Your task to perform on an android device: Go to Wikipedia Image 0: 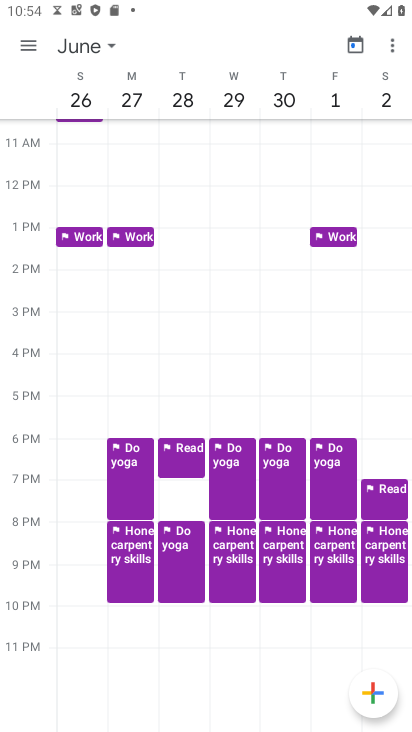
Step 0: press home button
Your task to perform on an android device: Go to Wikipedia Image 1: 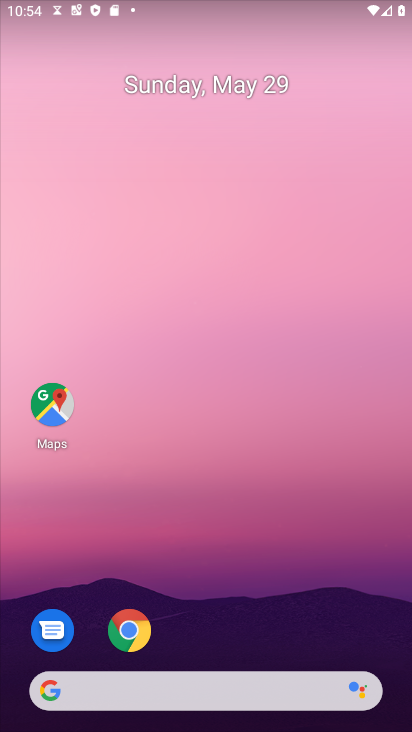
Step 1: click (117, 636)
Your task to perform on an android device: Go to Wikipedia Image 2: 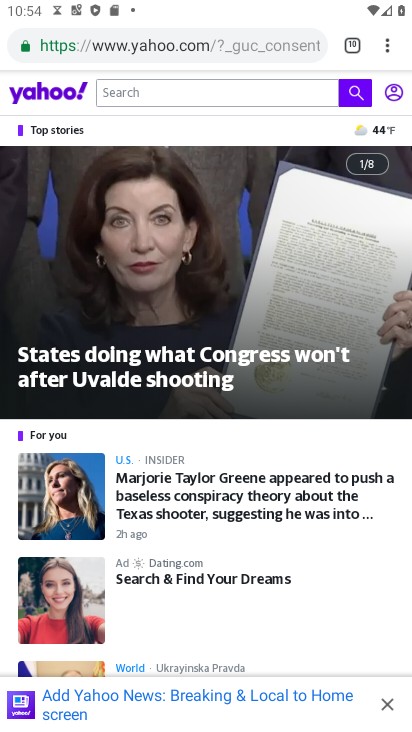
Step 2: click (359, 37)
Your task to perform on an android device: Go to Wikipedia Image 3: 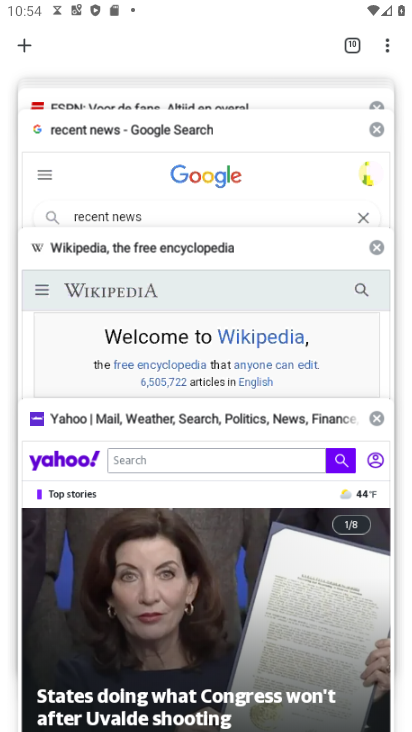
Step 3: click (345, 324)
Your task to perform on an android device: Go to Wikipedia Image 4: 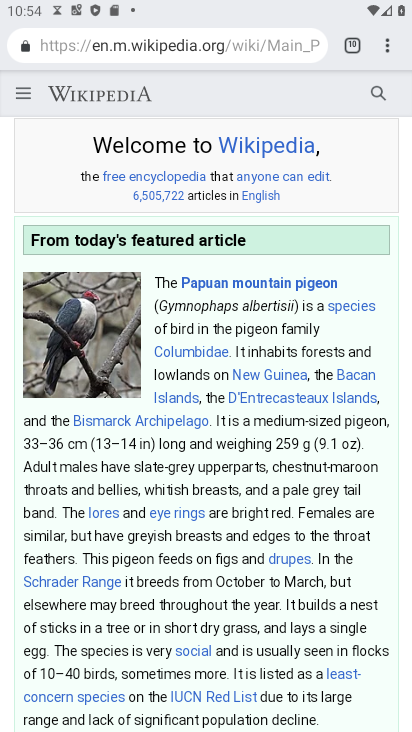
Step 4: task complete